Your task to perform on an android device: find which apps use the phone's location Image 0: 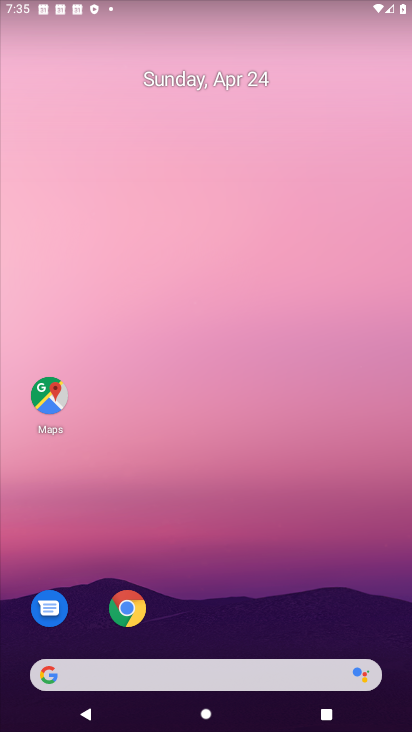
Step 0: drag from (213, 580) to (267, 131)
Your task to perform on an android device: find which apps use the phone's location Image 1: 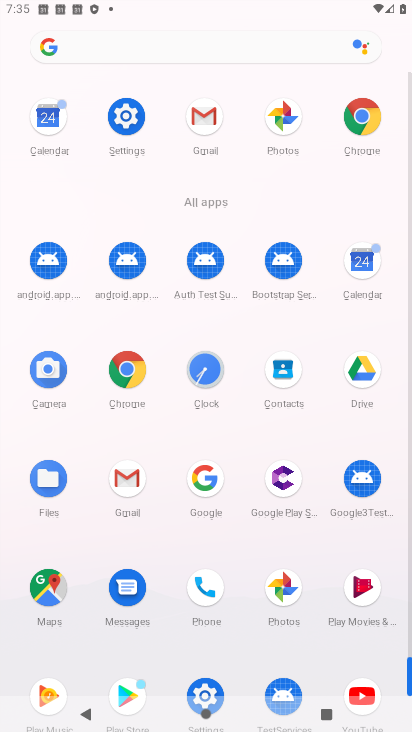
Step 1: click (128, 116)
Your task to perform on an android device: find which apps use the phone's location Image 2: 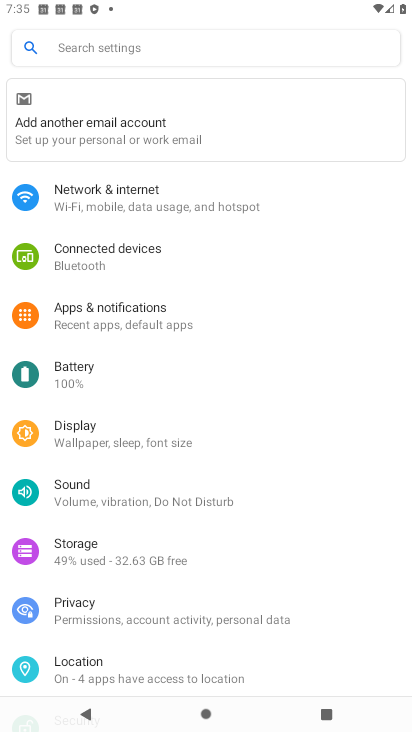
Step 2: click (197, 670)
Your task to perform on an android device: find which apps use the phone's location Image 3: 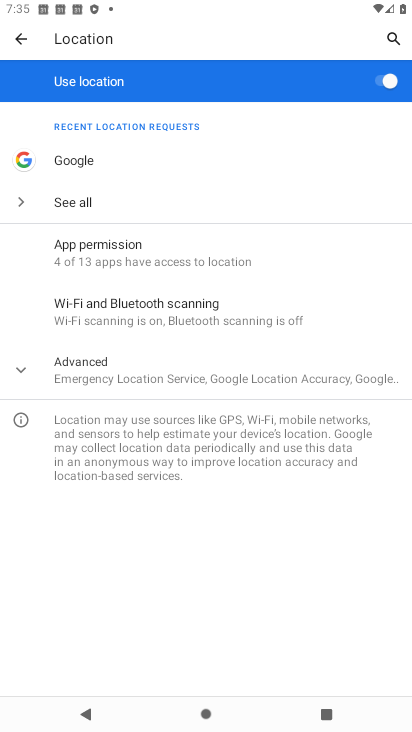
Step 3: click (150, 249)
Your task to perform on an android device: find which apps use the phone's location Image 4: 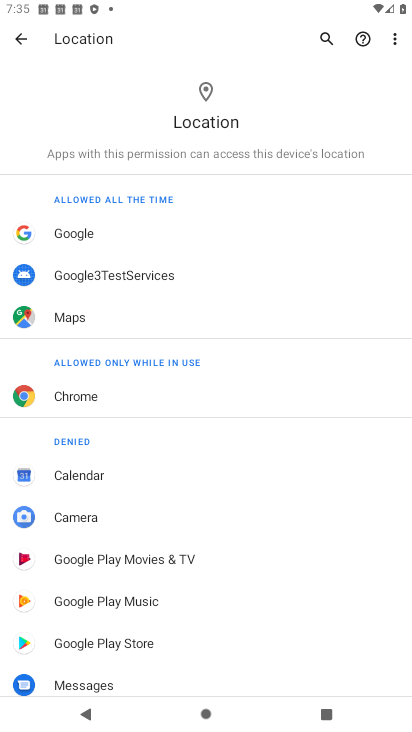
Step 4: task complete